Your task to perform on an android device: remove spam from my inbox in the gmail app Image 0: 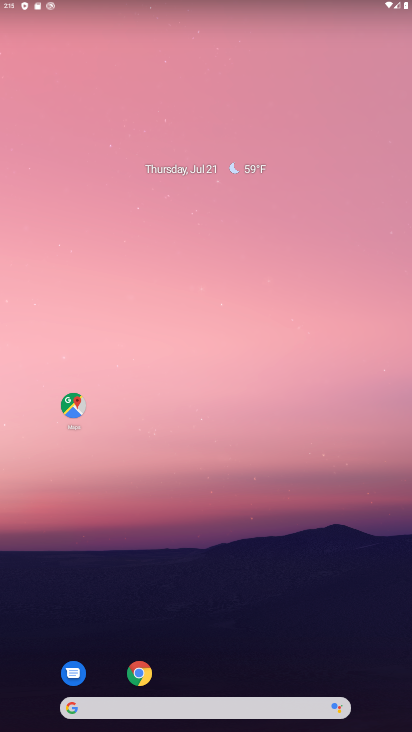
Step 0: drag from (393, 685) to (330, 264)
Your task to perform on an android device: remove spam from my inbox in the gmail app Image 1: 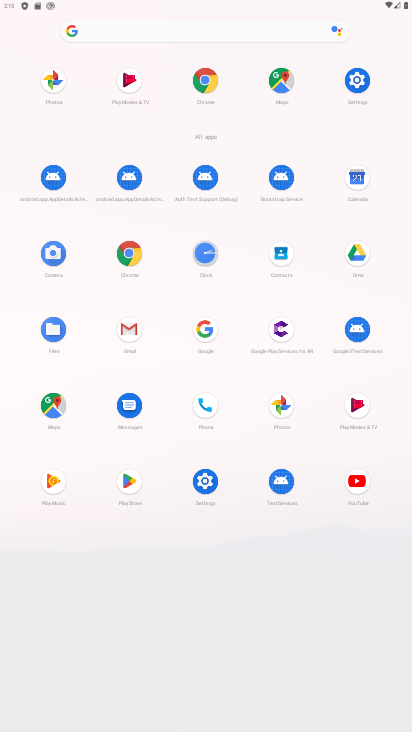
Step 1: click (128, 327)
Your task to perform on an android device: remove spam from my inbox in the gmail app Image 2: 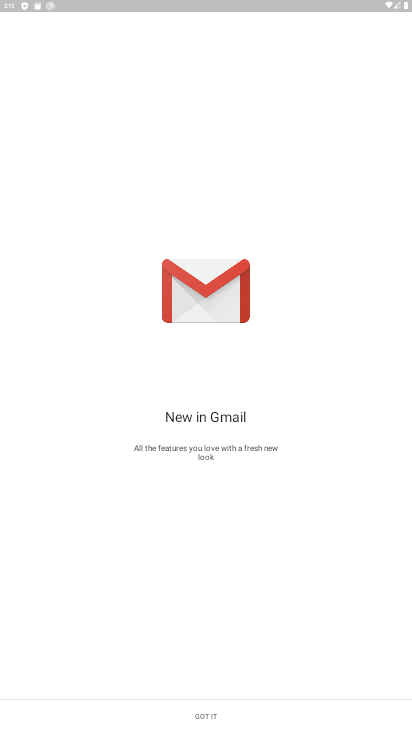
Step 2: click (205, 712)
Your task to perform on an android device: remove spam from my inbox in the gmail app Image 3: 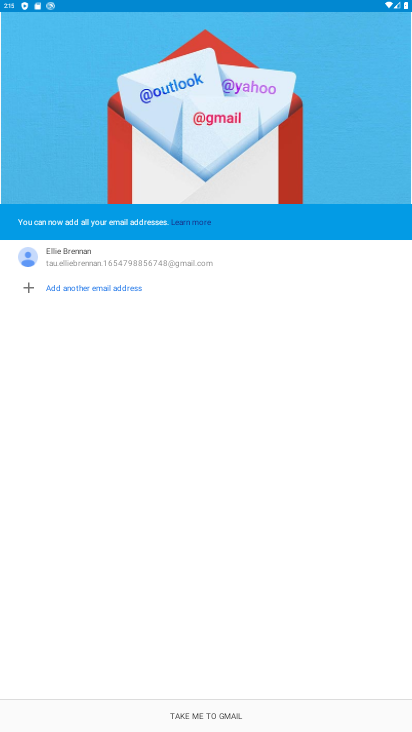
Step 3: click (217, 710)
Your task to perform on an android device: remove spam from my inbox in the gmail app Image 4: 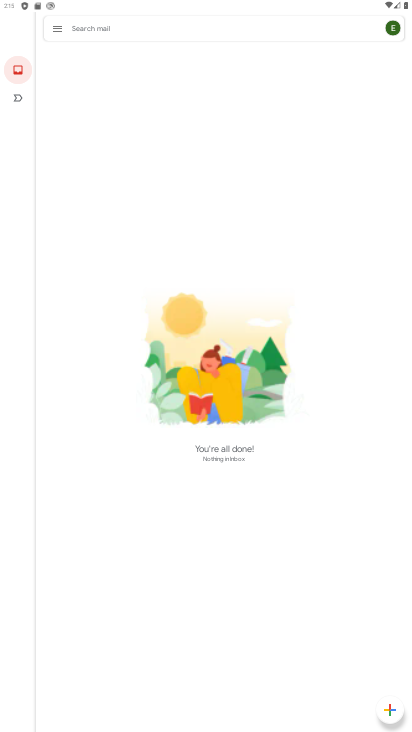
Step 4: click (54, 29)
Your task to perform on an android device: remove spam from my inbox in the gmail app Image 5: 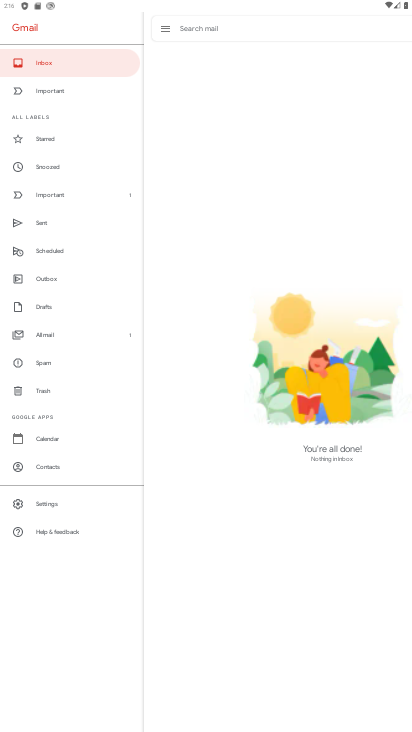
Step 5: click (40, 361)
Your task to perform on an android device: remove spam from my inbox in the gmail app Image 6: 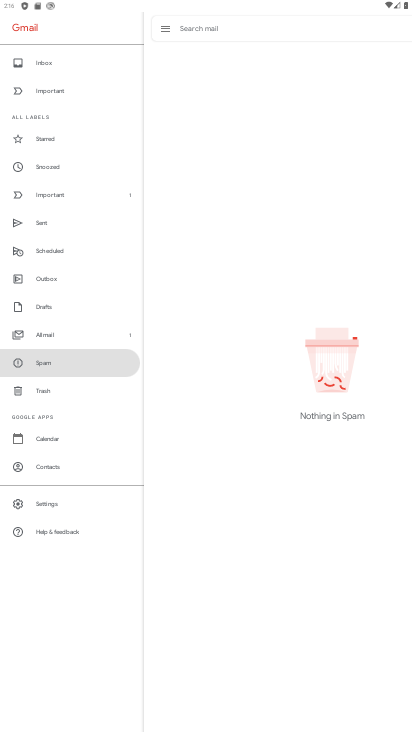
Step 6: task complete